Your task to perform on an android device: Open Youtube and go to "Your channel" Image 0: 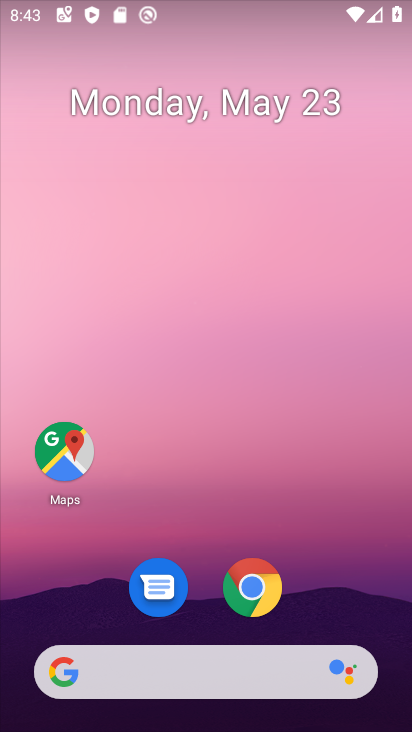
Step 0: drag from (322, 579) to (289, 142)
Your task to perform on an android device: Open Youtube and go to "Your channel" Image 1: 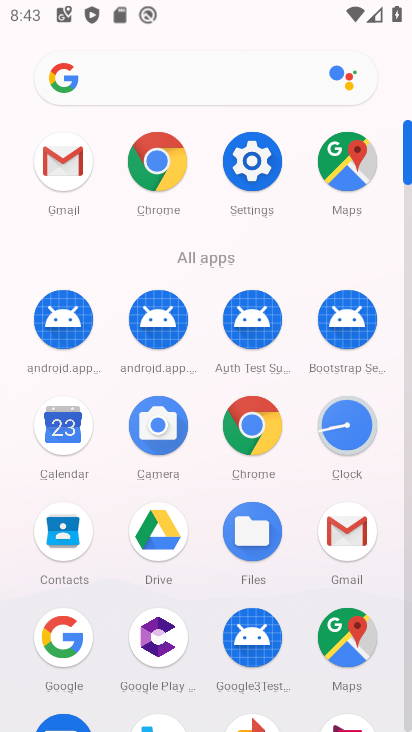
Step 1: drag from (285, 573) to (239, 185)
Your task to perform on an android device: Open Youtube and go to "Your channel" Image 2: 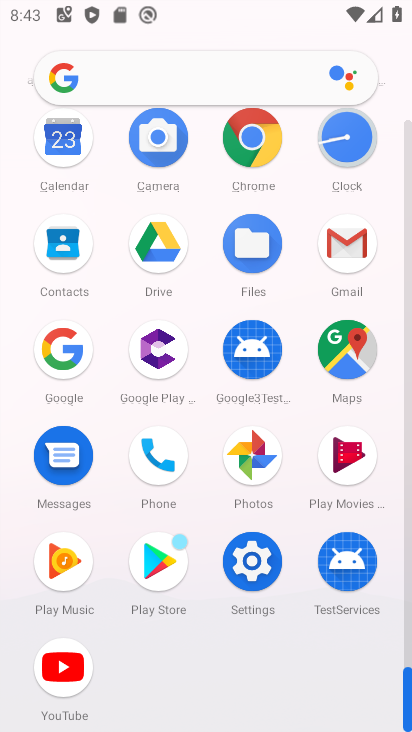
Step 2: click (71, 659)
Your task to perform on an android device: Open Youtube and go to "Your channel" Image 3: 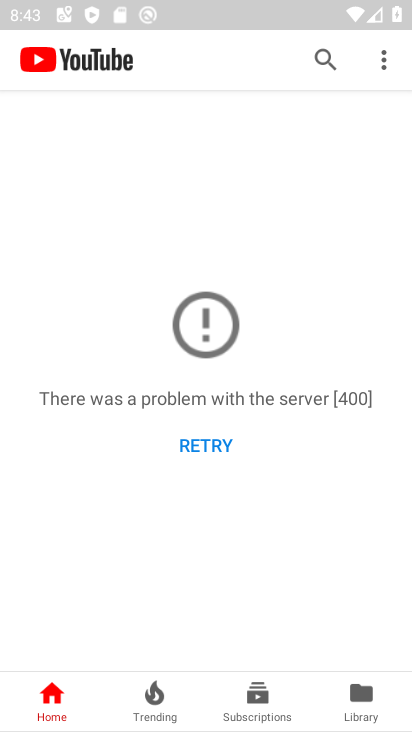
Step 3: click (385, 59)
Your task to perform on an android device: Open Youtube and go to "Your channel" Image 4: 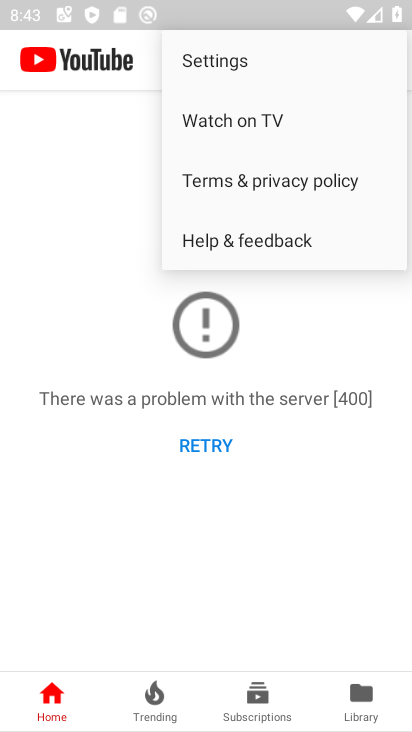
Step 4: click (378, 530)
Your task to perform on an android device: Open Youtube and go to "Your channel" Image 5: 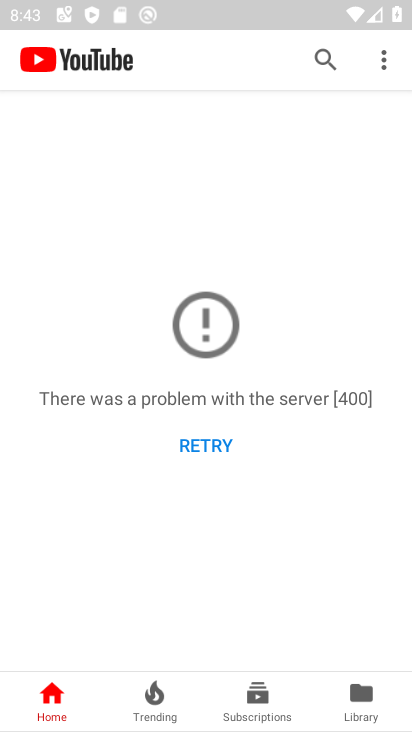
Step 5: click (363, 699)
Your task to perform on an android device: Open Youtube and go to "Your channel" Image 6: 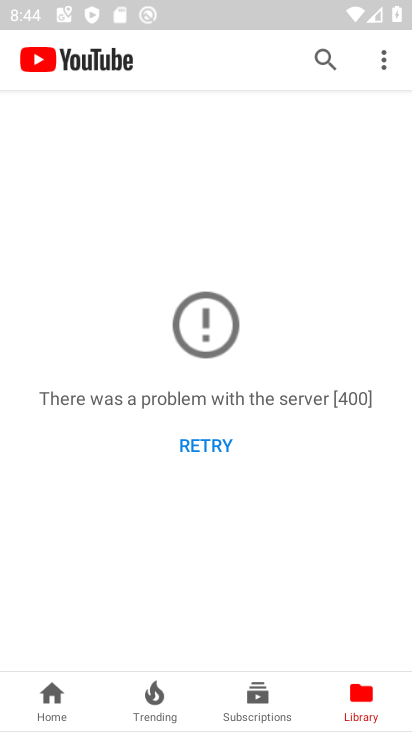
Step 6: click (43, 695)
Your task to perform on an android device: Open Youtube and go to "Your channel" Image 7: 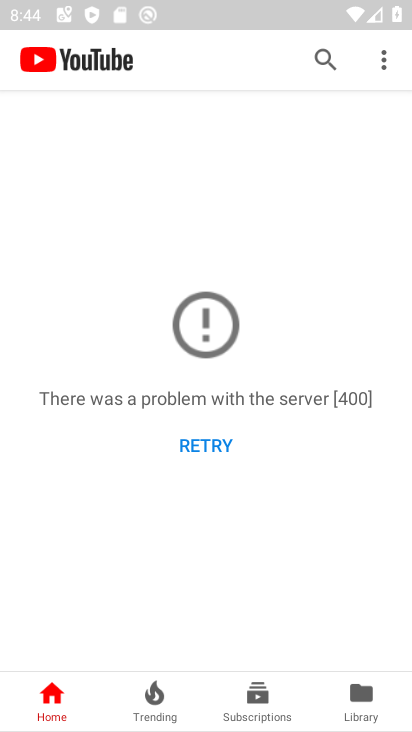
Step 7: task complete